Your task to perform on an android device: allow cookies in the chrome app Image 0: 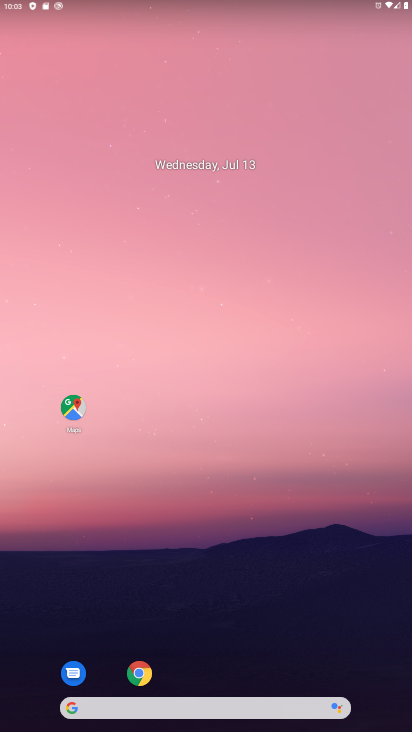
Step 0: click (143, 665)
Your task to perform on an android device: allow cookies in the chrome app Image 1: 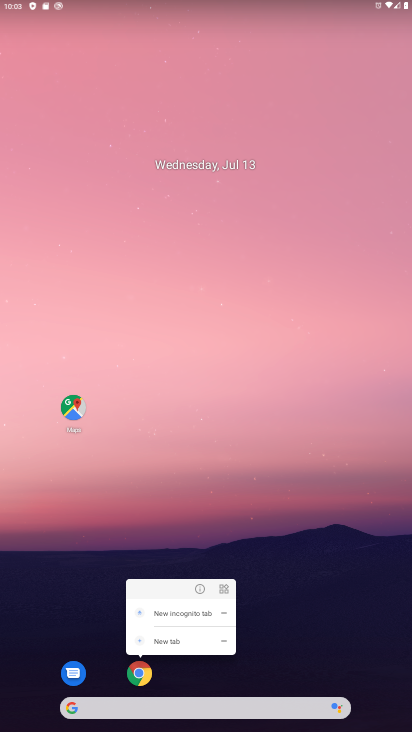
Step 1: click (137, 684)
Your task to perform on an android device: allow cookies in the chrome app Image 2: 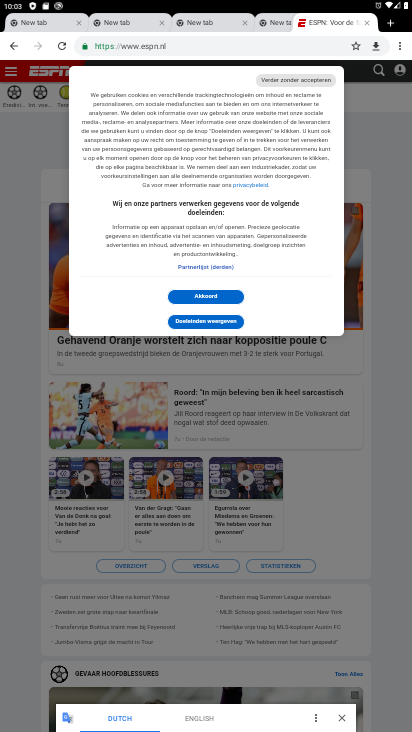
Step 2: click (397, 52)
Your task to perform on an android device: allow cookies in the chrome app Image 3: 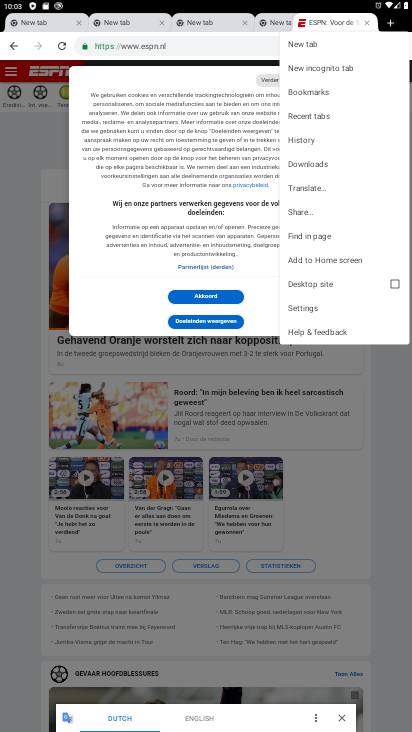
Step 3: click (318, 309)
Your task to perform on an android device: allow cookies in the chrome app Image 4: 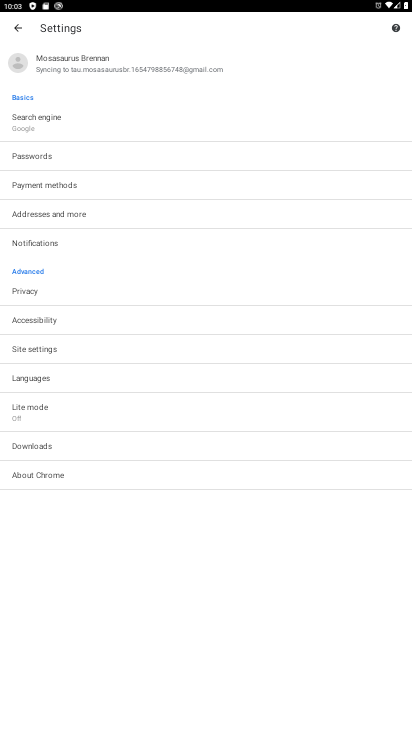
Step 4: click (31, 348)
Your task to perform on an android device: allow cookies in the chrome app Image 5: 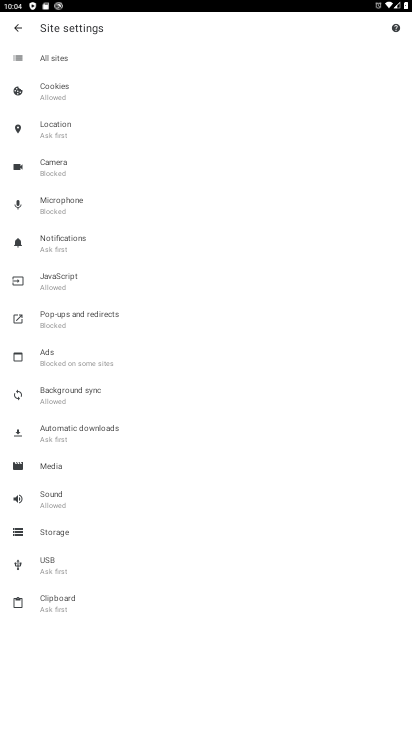
Step 5: click (54, 90)
Your task to perform on an android device: allow cookies in the chrome app Image 6: 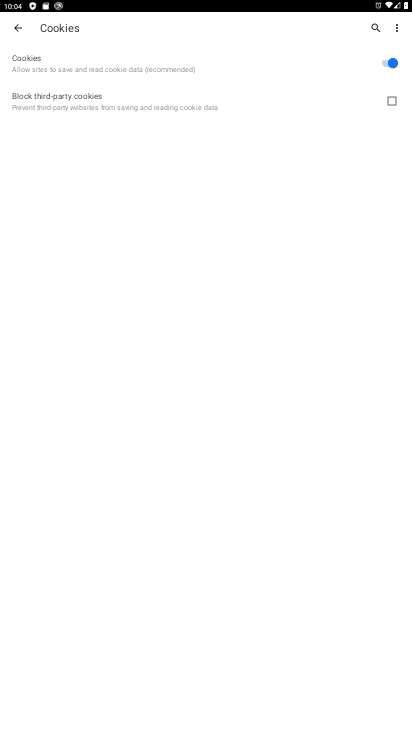
Step 6: task complete